Your task to perform on an android device: turn on translation in the chrome app Image 0: 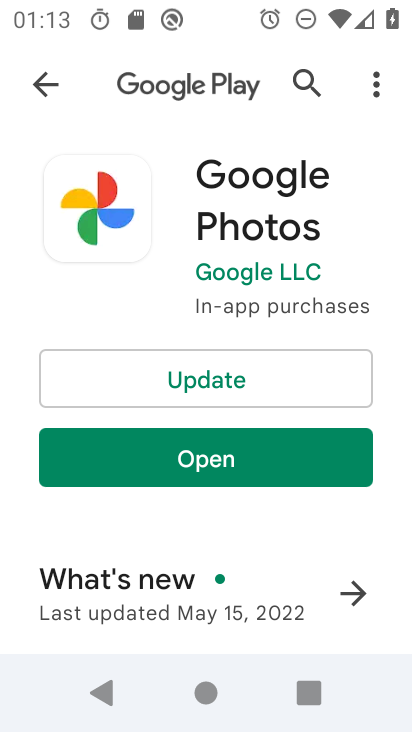
Step 0: press home button
Your task to perform on an android device: turn on translation in the chrome app Image 1: 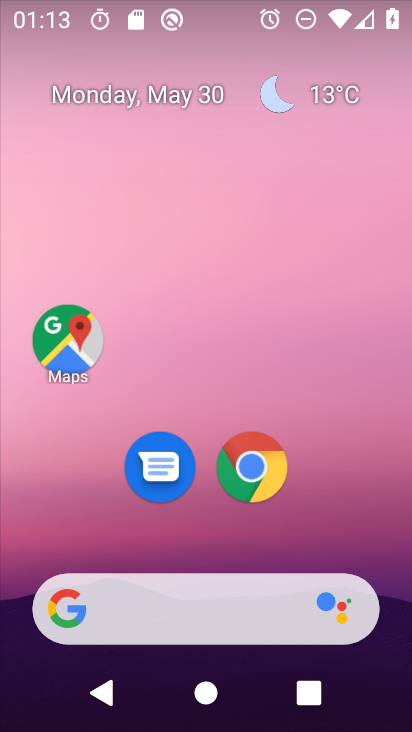
Step 1: click (261, 464)
Your task to perform on an android device: turn on translation in the chrome app Image 2: 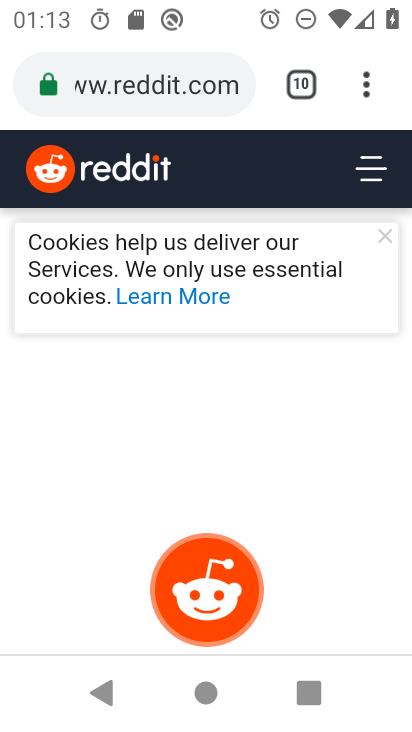
Step 2: click (256, 356)
Your task to perform on an android device: turn on translation in the chrome app Image 3: 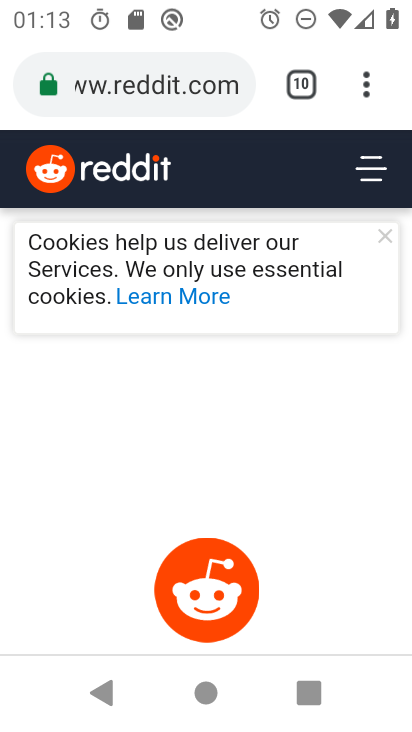
Step 3: click (361, 83)
Your task to perform on an android device: turn on translation in the chrome app Image 4: 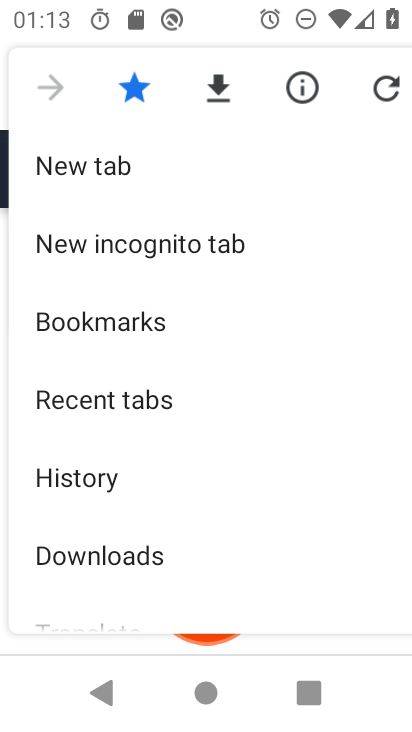
Step 4: drag from (185, 499) to (230, 288)
Your task to perform on an android device: turn on translation in the chrome app Image 5: 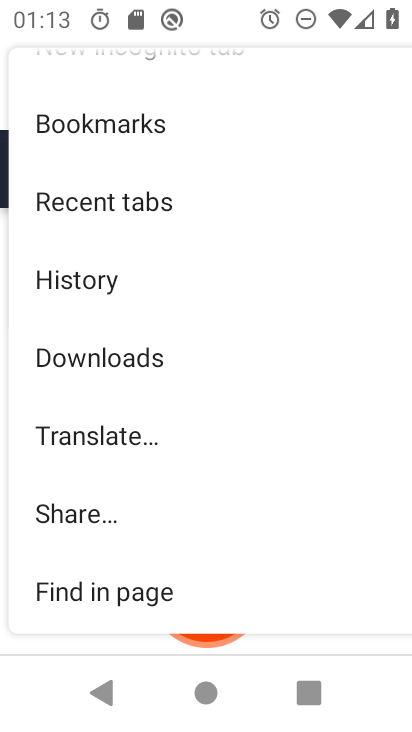
Step 5: drag from (218, 467) to (250, 232)
Your task to perform on an android device: turn on translation in the chrome app Image 6: 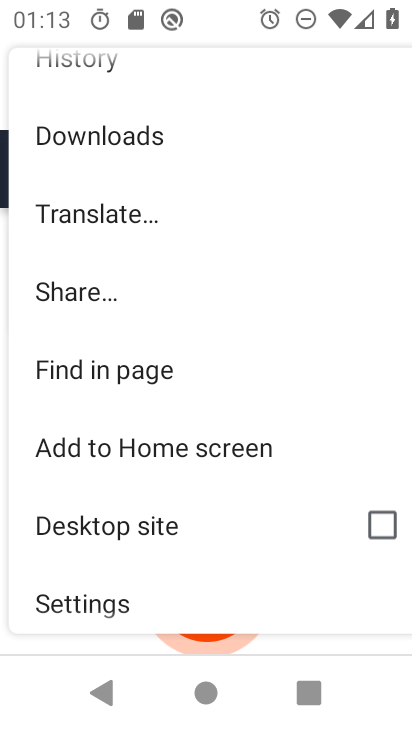
Step 6: drag from (159, 508) to (196, 293)
Your task to perform on an android device: turn on translation in the chrome app Image 7: 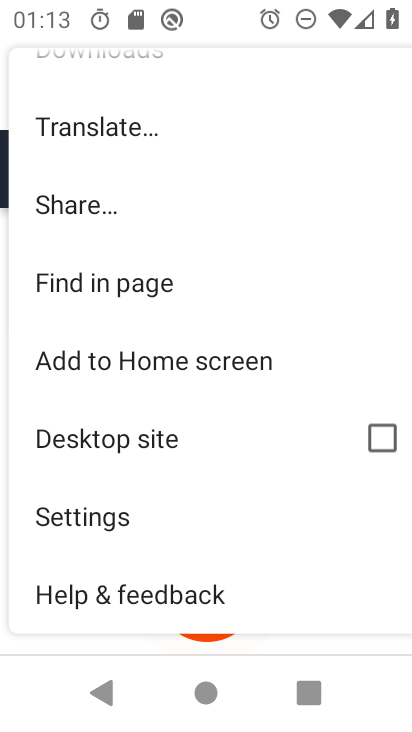
Step 7: click (137, 530)
Your task to perform on an android device: turn on translation in the chrome app Image 8: 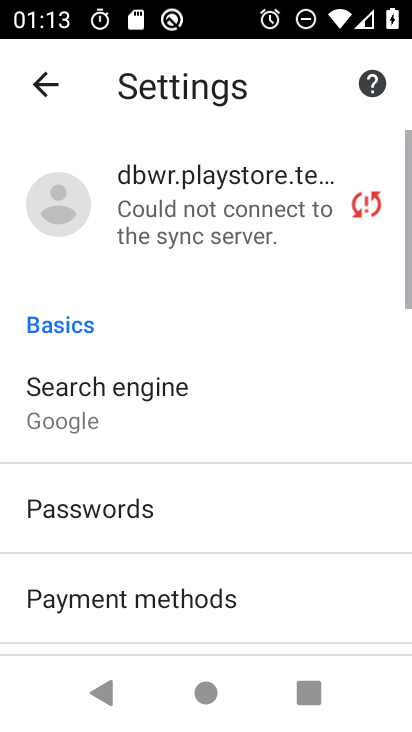
Step 8: drag from (143, 532) to (198, 348)
Your task to perform on an android device: turn on translation in the chrome app Image 9: 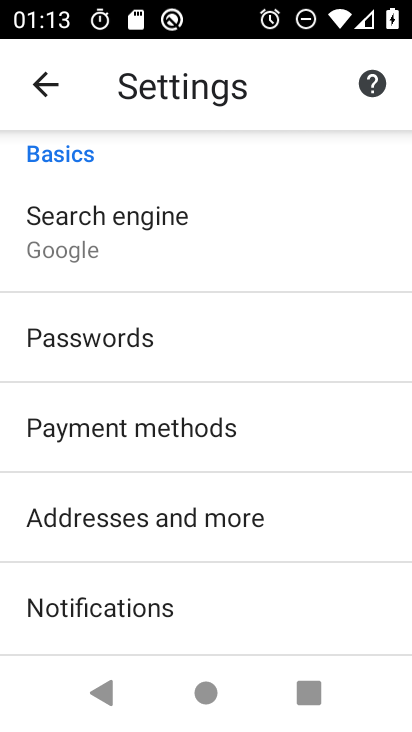
Step 9: drag from (198, 545) to (240, 336)
Your task to perform on an android device: turn on translation in the chrome app Image 10: 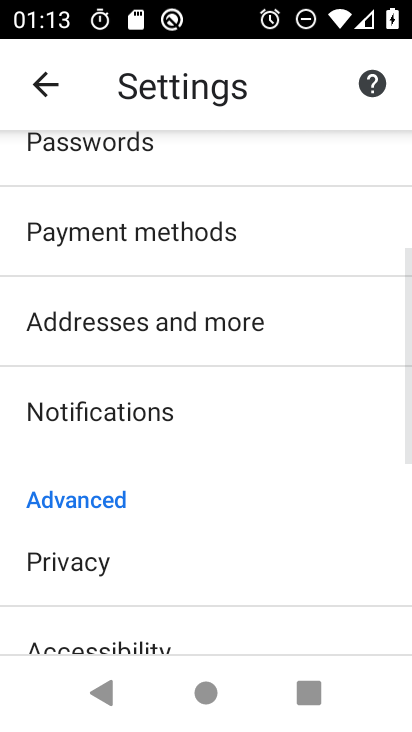
Step 10: drag from (243, 461) to (253, 310)
Your task to perform on an android device: turn on translation in the chrome app Image 11: 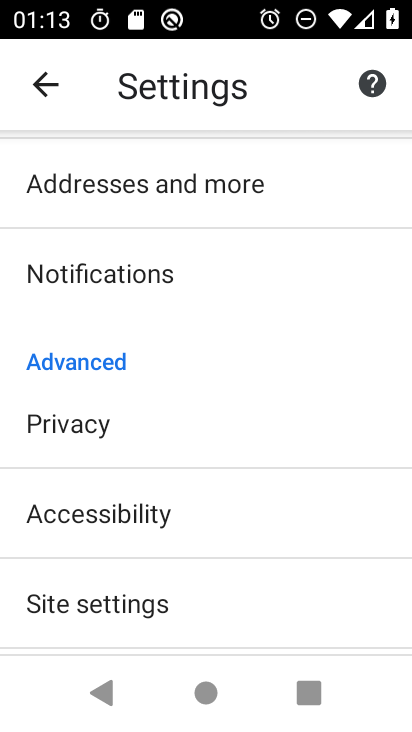
Step 11: drag from (233, 504) to (258, 341)
Your task to perform on an android device: turn on translation in the chrome app Image 12: 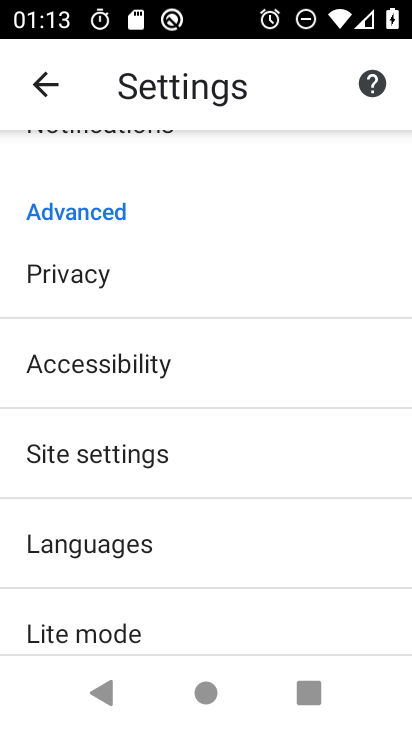
Step 12: click (245, 510)
Your task to perform on an android device: turn on translation in the chrome app Image 13: 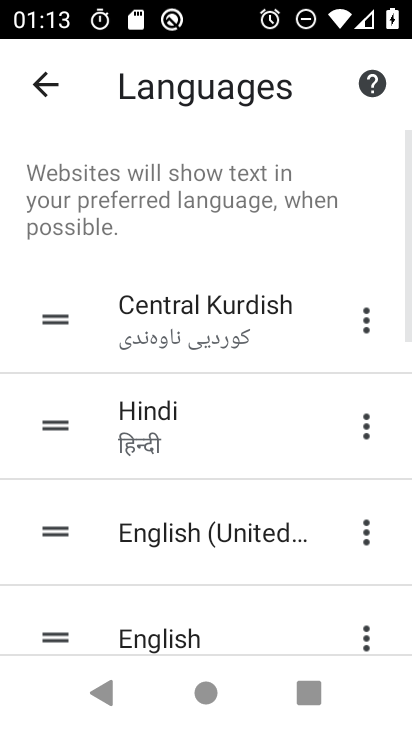
Step 13: task complete